Your task to perform on an android device: toggle sleep mode Image 0: 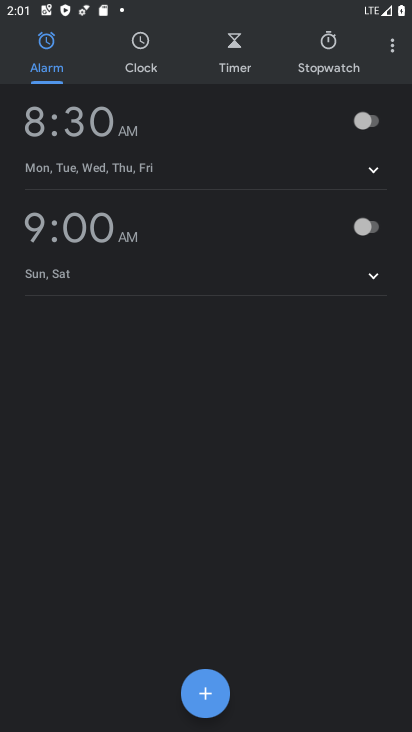
Step 0: press home button
Your task to perform on an android device: toggle sleep mode Image 1: 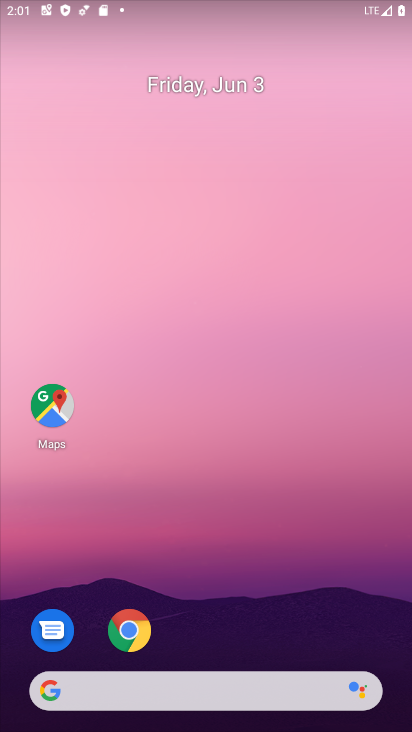
Step 1: drag from (231, 727) to (224, 38)
Your task to perform on an android device: toggle sleep mode Image 2: 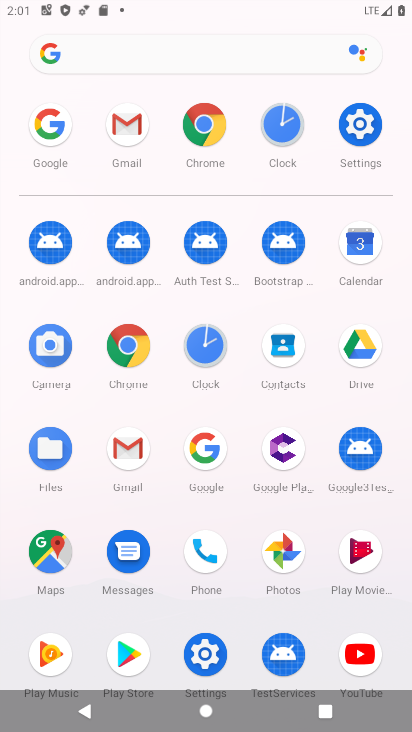
Step 2: click (365, 133)
Your task to perform on an android device: toggle sleep mode Image 3: 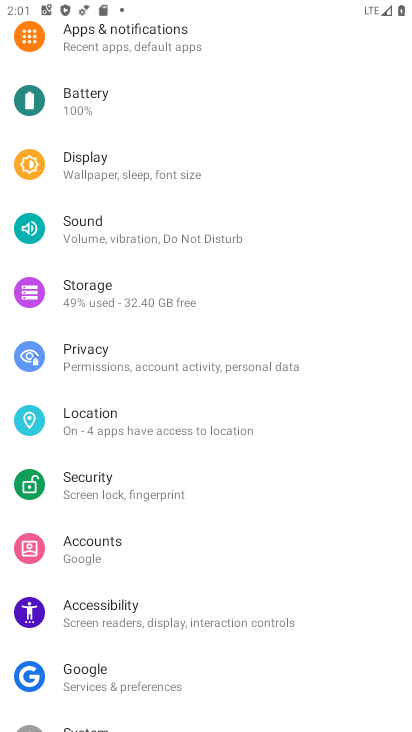
Step 3: task complete